Your task to perform on an android device: turn off sleep mode Image 0: 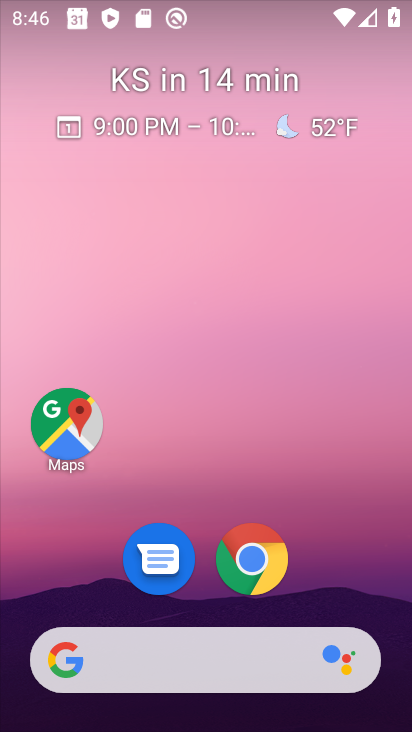
Step 0: drag from (332, 503) to (263, 22)
Your task to perform on an android device: turn off sleep mode Image 1: 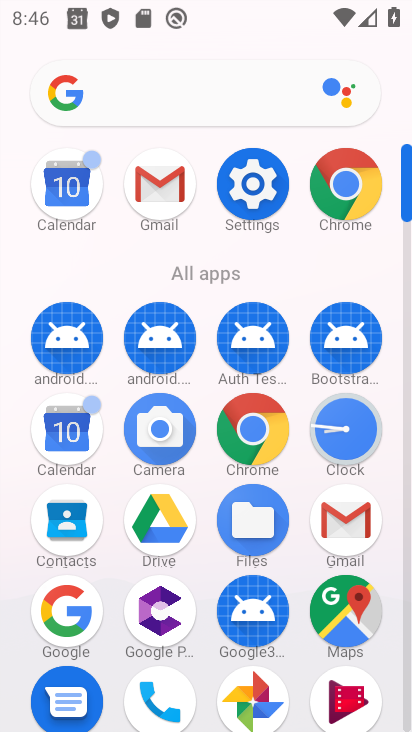
Step 1: click (253, 180)
Your task to perform on an android device: turn off sleep mode Image 2: 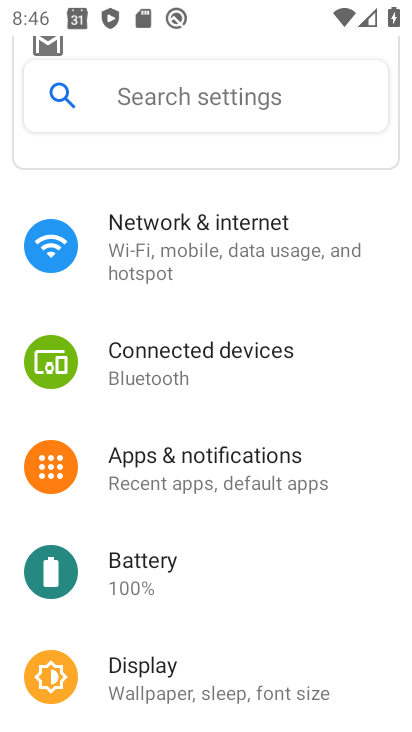
Step 2: drag from (332, 445) to (311, 189)
Your task to perform on an android device: turn off sleep mode Image 3: 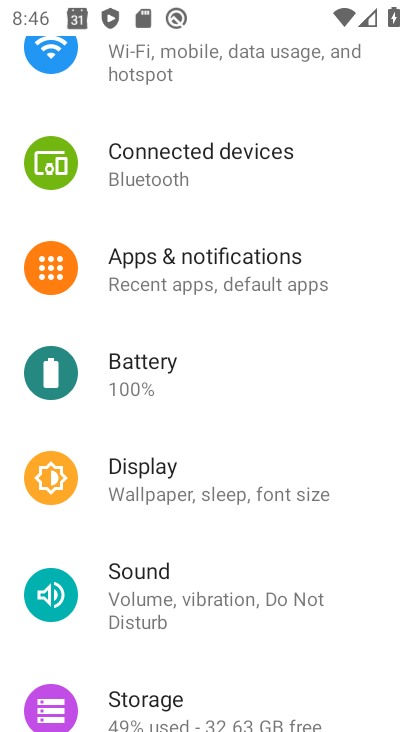
Step 3: drag from (306, 178) to (312, 465)
Your task to perform on an android device: turn off sleep mode Image 4: 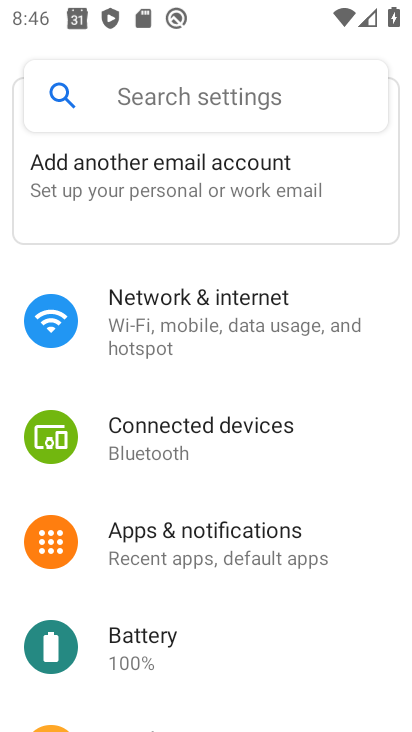
Step 4: drag from (301, 547) to (314, 205)
Your task to perform on an android device: turn off sleep mode Image 5: 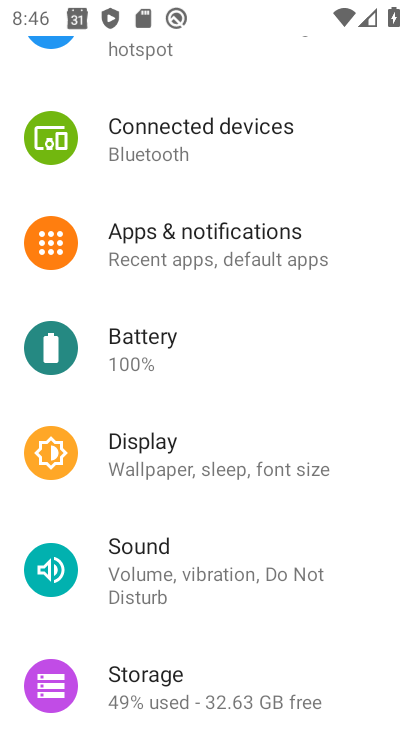
Step 5: drag from (241, 555) to (216, 232)
Your task to perform on an android device: turn off sleep mode Image 6: 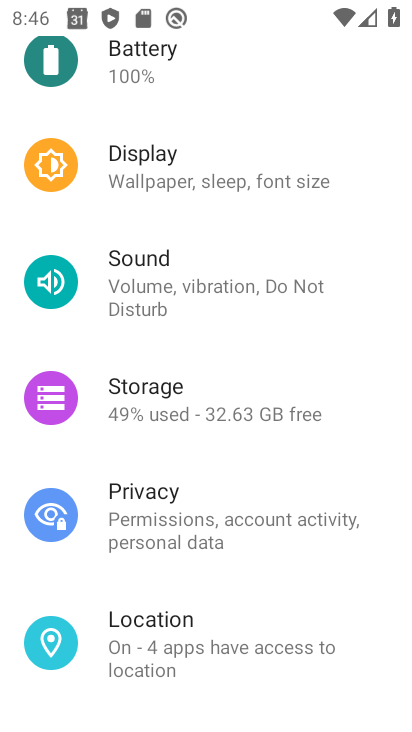
Step 6: drag from (272, 131) to (278, 296)
Your task to perform on an android device: turn off sleep mode Image 7: 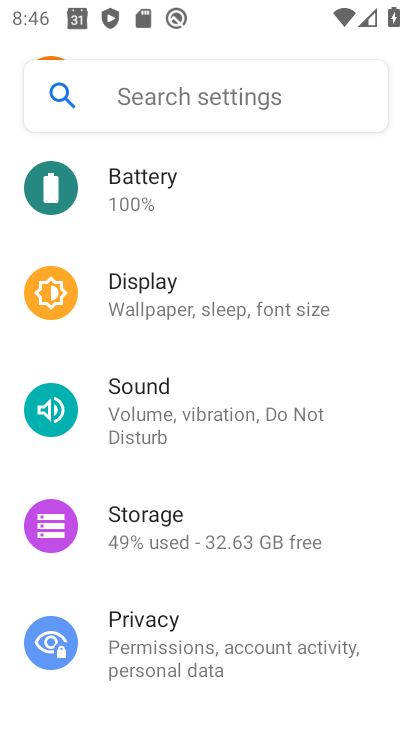
Step 7: click (276, 296)
Your task to perform on an android device: turn off sleep mode Image 8: 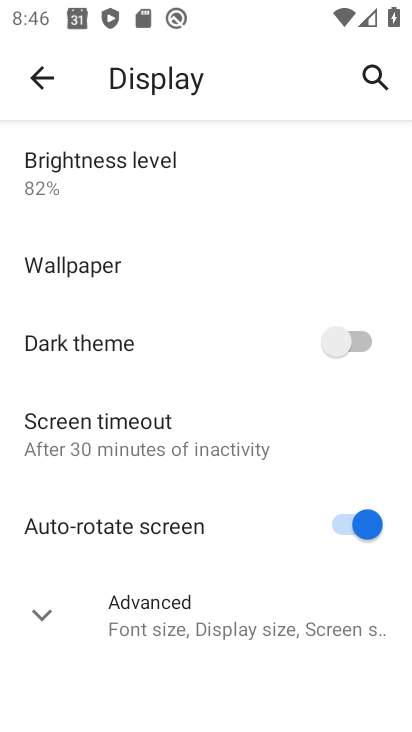
Step 8: click (52, 614)
Your task to perform on an android device: turn off sleep mode Image 9: 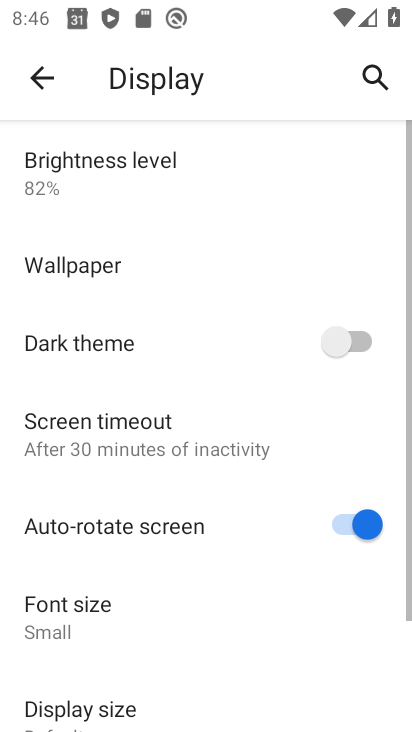
Step 9: task complete